Your task to perform on an android device: Is it going to rain tomorrow? Image 0: 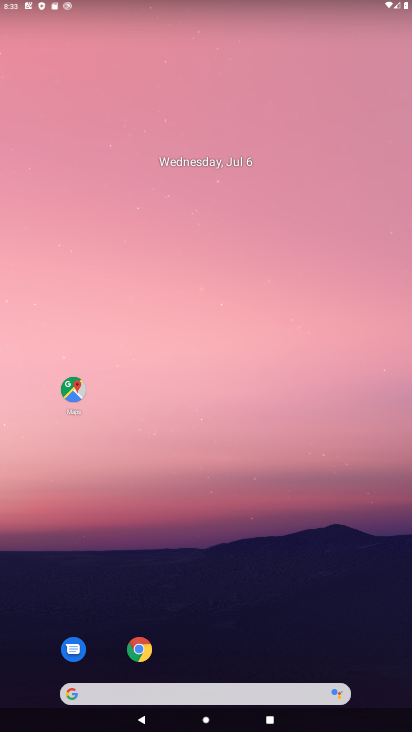
Step 0: drag from (234, 196) to (264, 121)
Your task to perform on an android device: Is it going to rain tomorrow? Image 1: 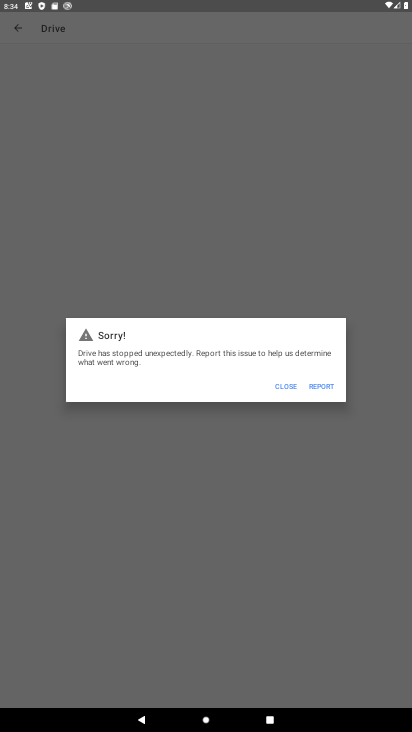
Step 1: press home button
Your task to perform on an android device: Is it going to rain tomorrow? Image 2: 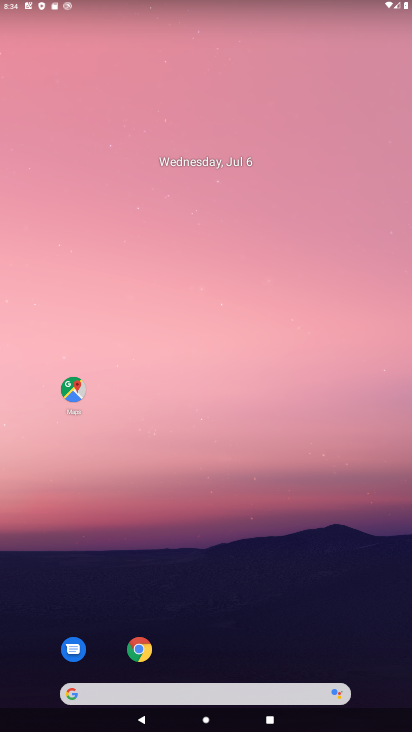
Step 2: click (204, 689)
Your task to perform on an android device: Is it going to rain tomorrow? Image 3: 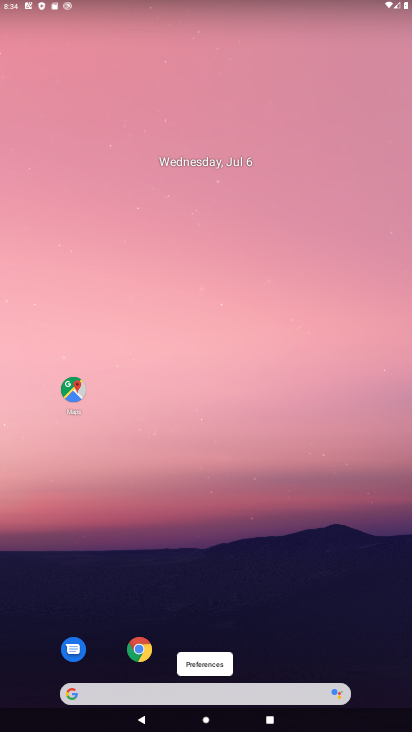
Step 3: click (203, 688)
Your task to perform on an android device: Is it going to rain tomorrow? Image 4: 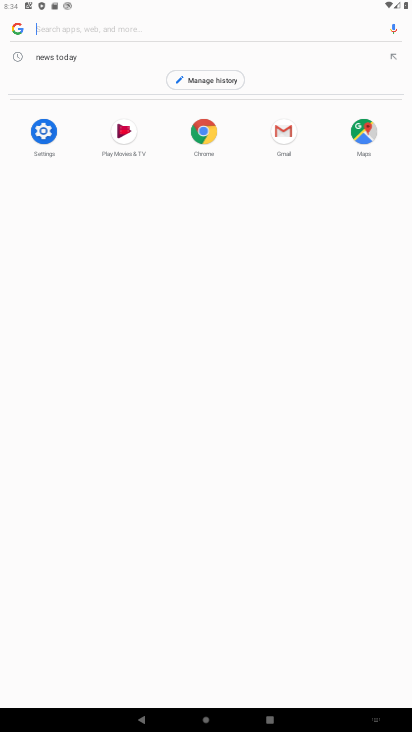
Step 4: type "weather"
Your task to perform on an android device: Is it going to rain tomorrow? Image 5: 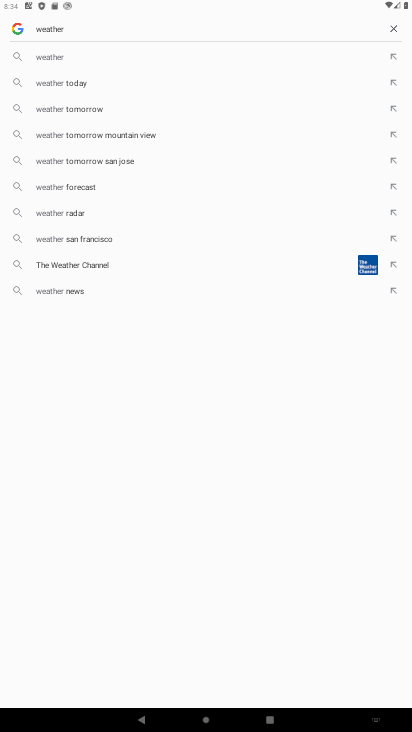
Step 5: click (61, 56)
Your task to perform on an android device: Is it going to rain tomorrow? Image 6: 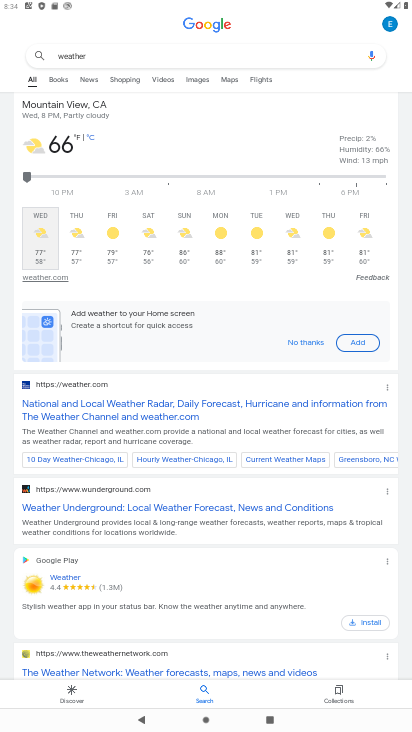
Step 6: task complete